Your task to perform on an android device: Install the eBay app Image 0: 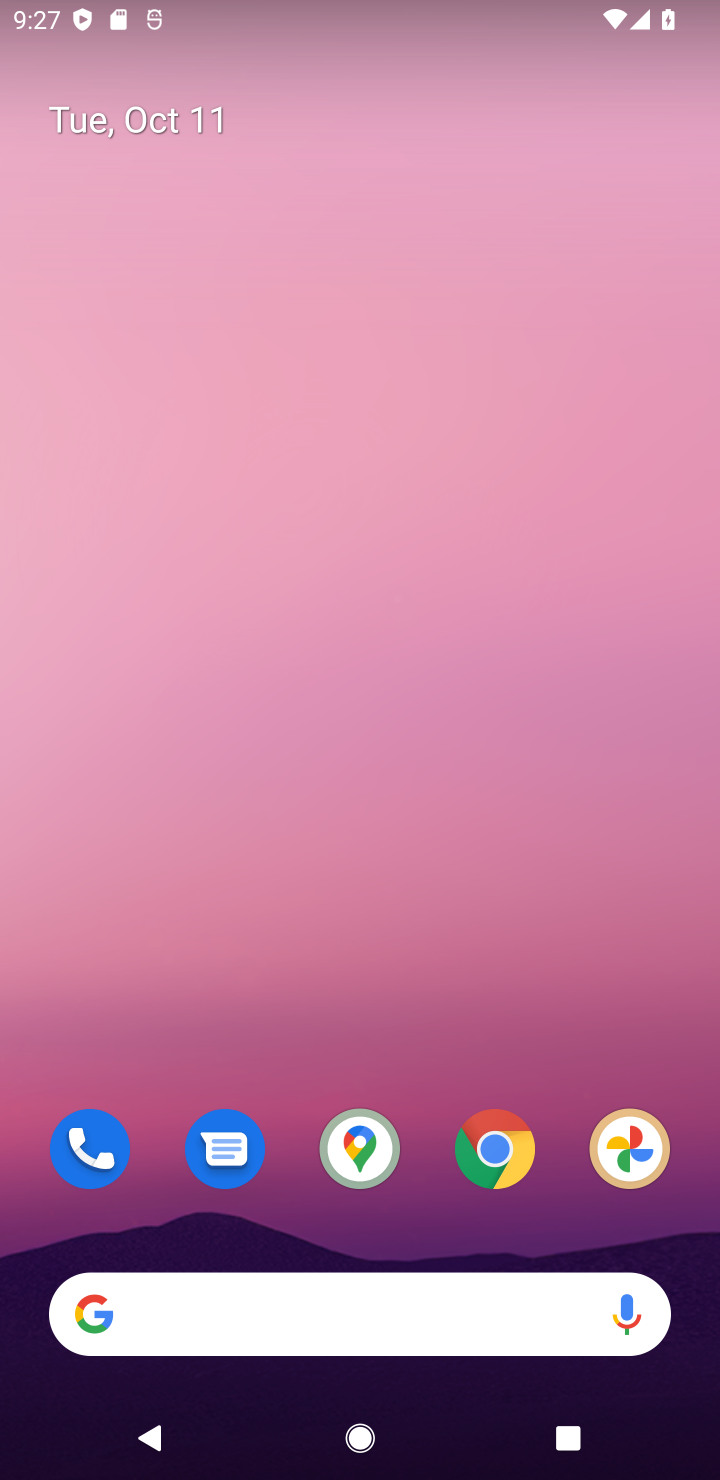
Step 0: drag from (313, 1062) to (302, 45)
Your task to perform on an android device: Install the eBay app Image 1: 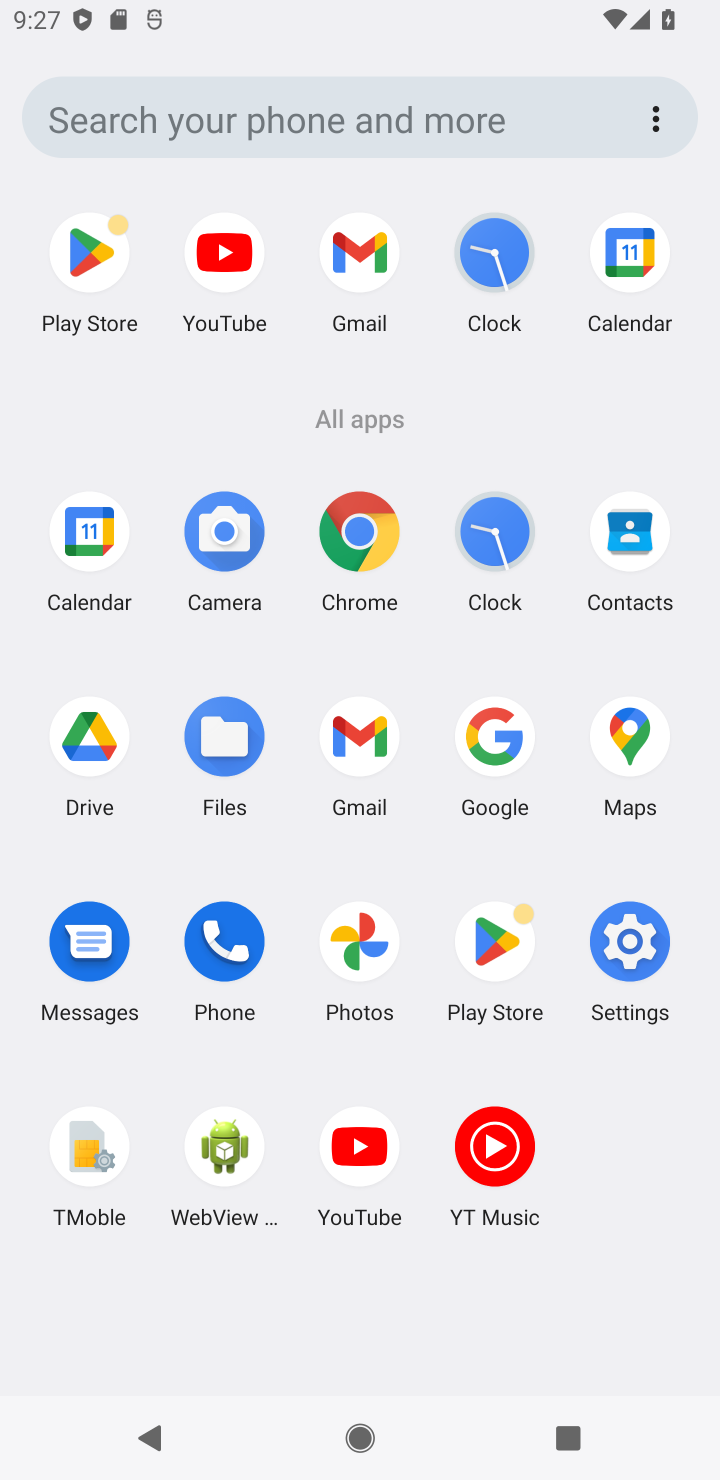
Step 1: click (490, 960)
Your task to perform on an android device: Install the eBay app Image 2: 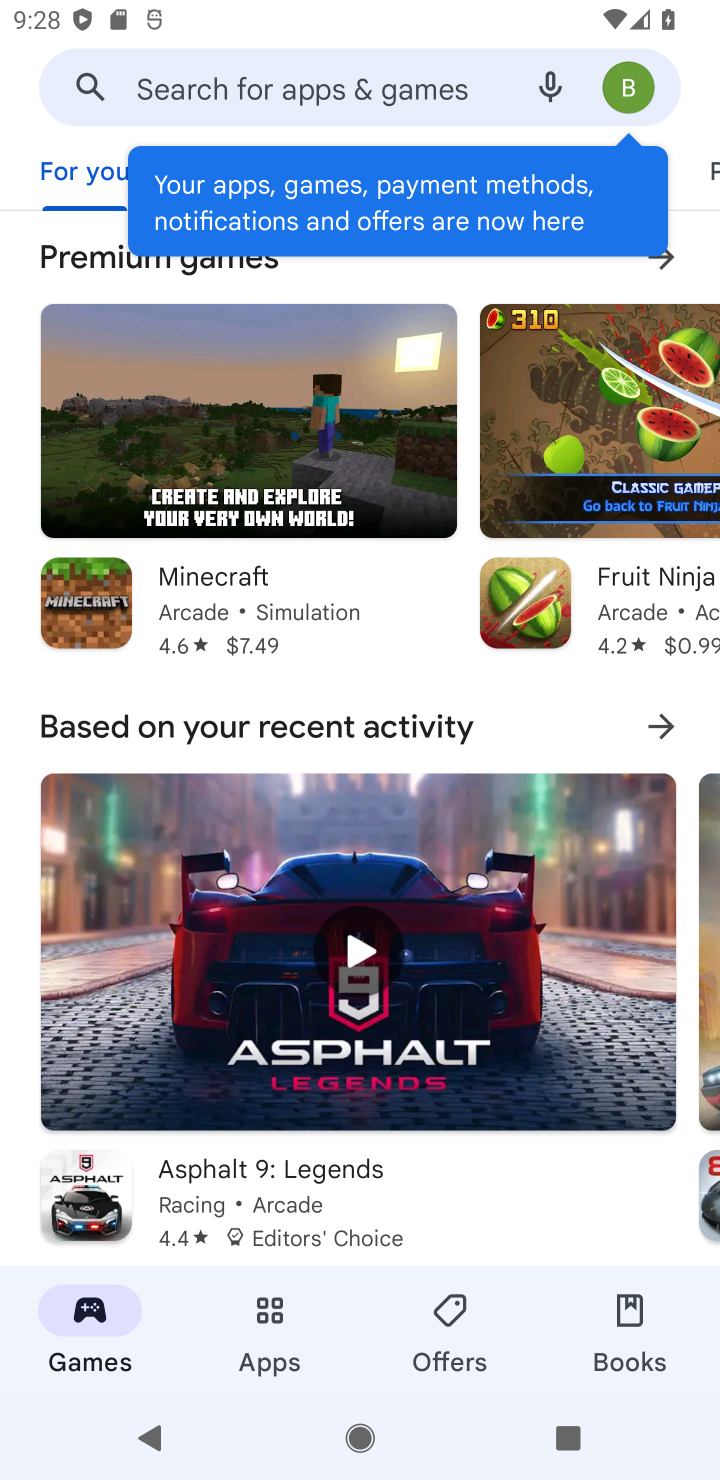
Step 2: press back button
Your task to perform on an android device: Install the eBay app Image 3: 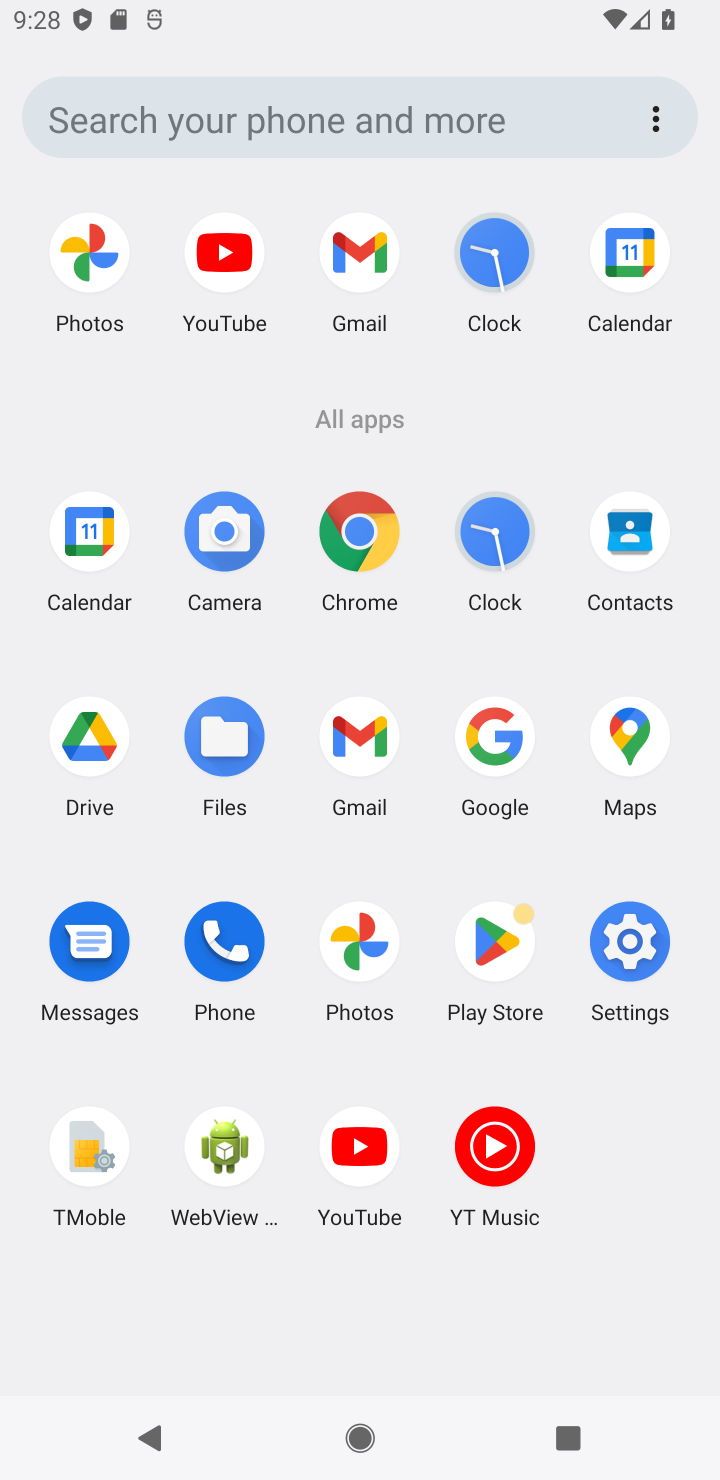
Step 3: click (500, 957)
Your task to perform on an android device: Install the eBay app Image 4: 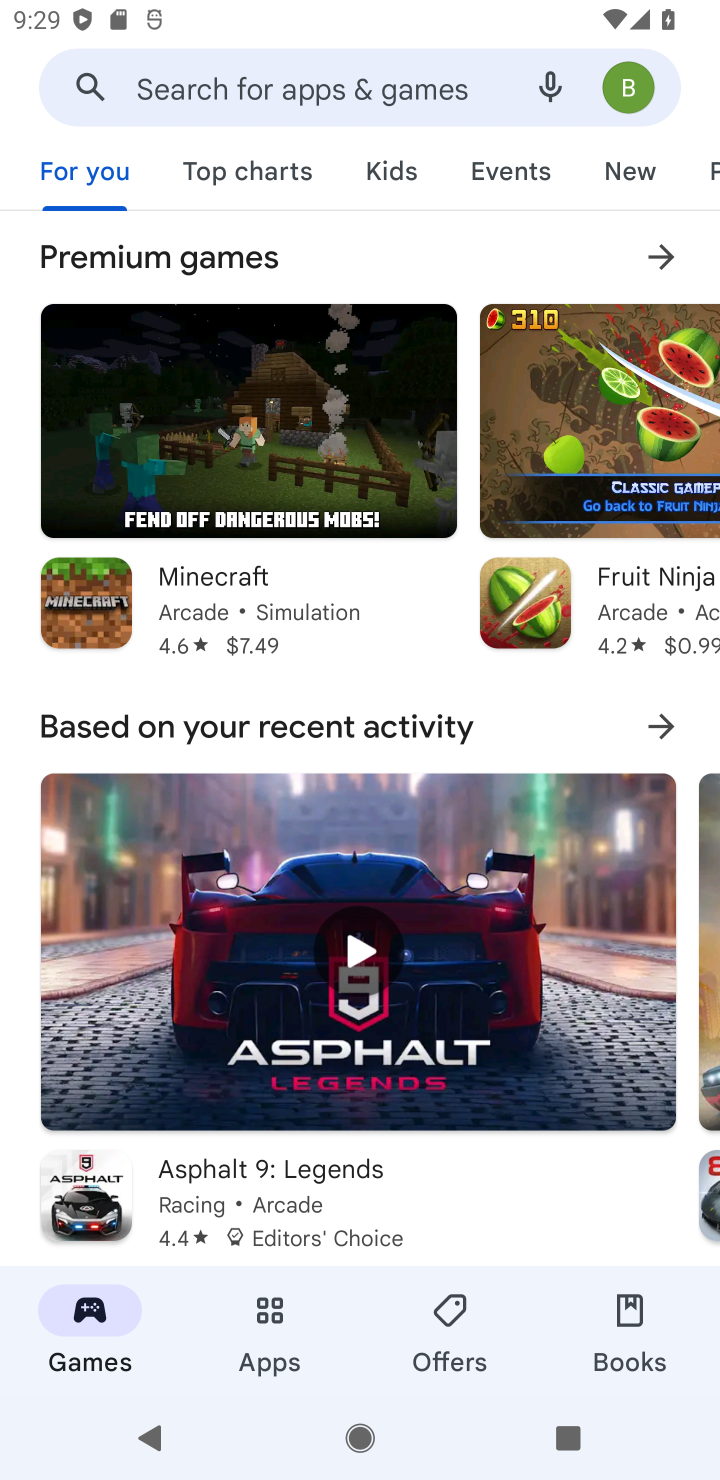
Step 4: click (256, 1325)
Your task to perform on an android device: Install the eBay app Image 5: 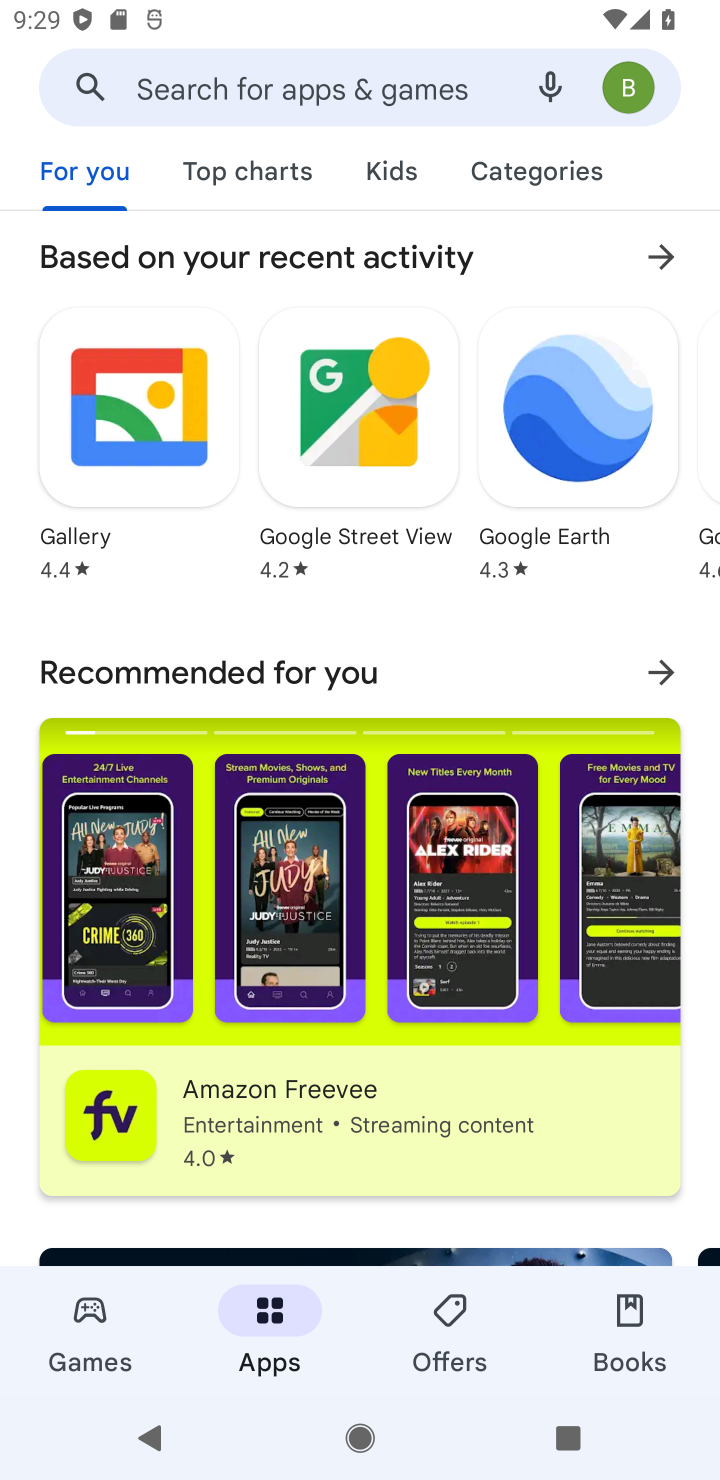
Step 5: click (320, 104)
Your task to perform on an android device: Install the eBay app Image 6: 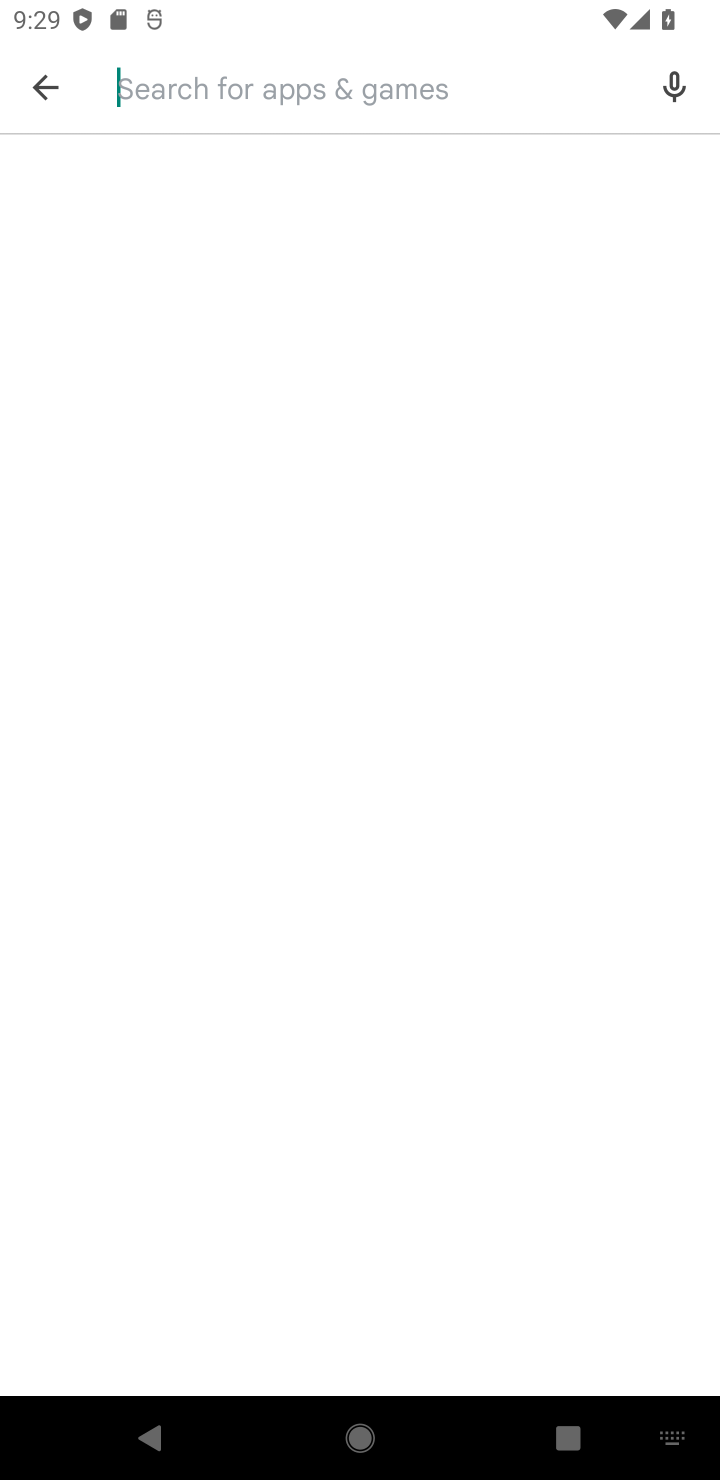
Step 6: type "eBay app"
Your task to perform on an android device: Install the eBay app Image 7: 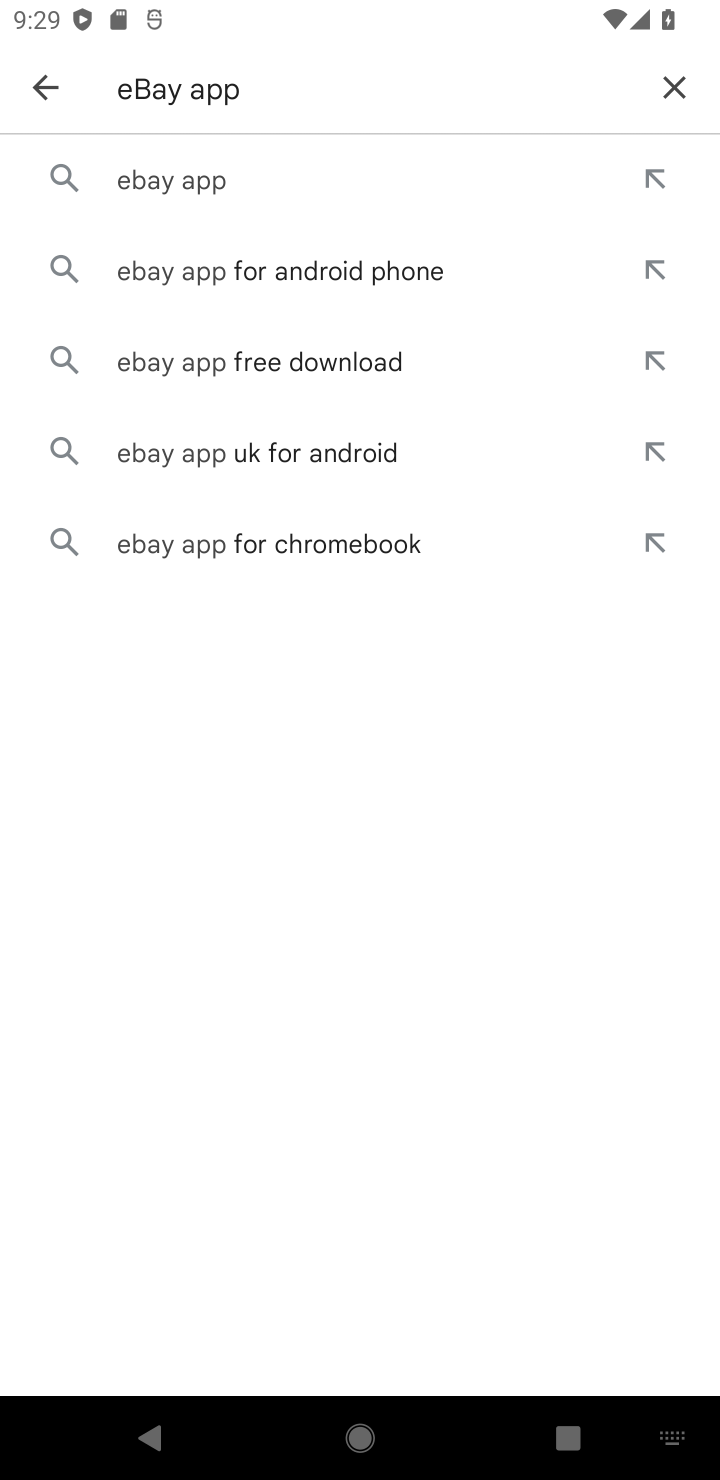
Step 7: click (193, 162)
Your task to perform on an android device: Install the eBay app Image 8: 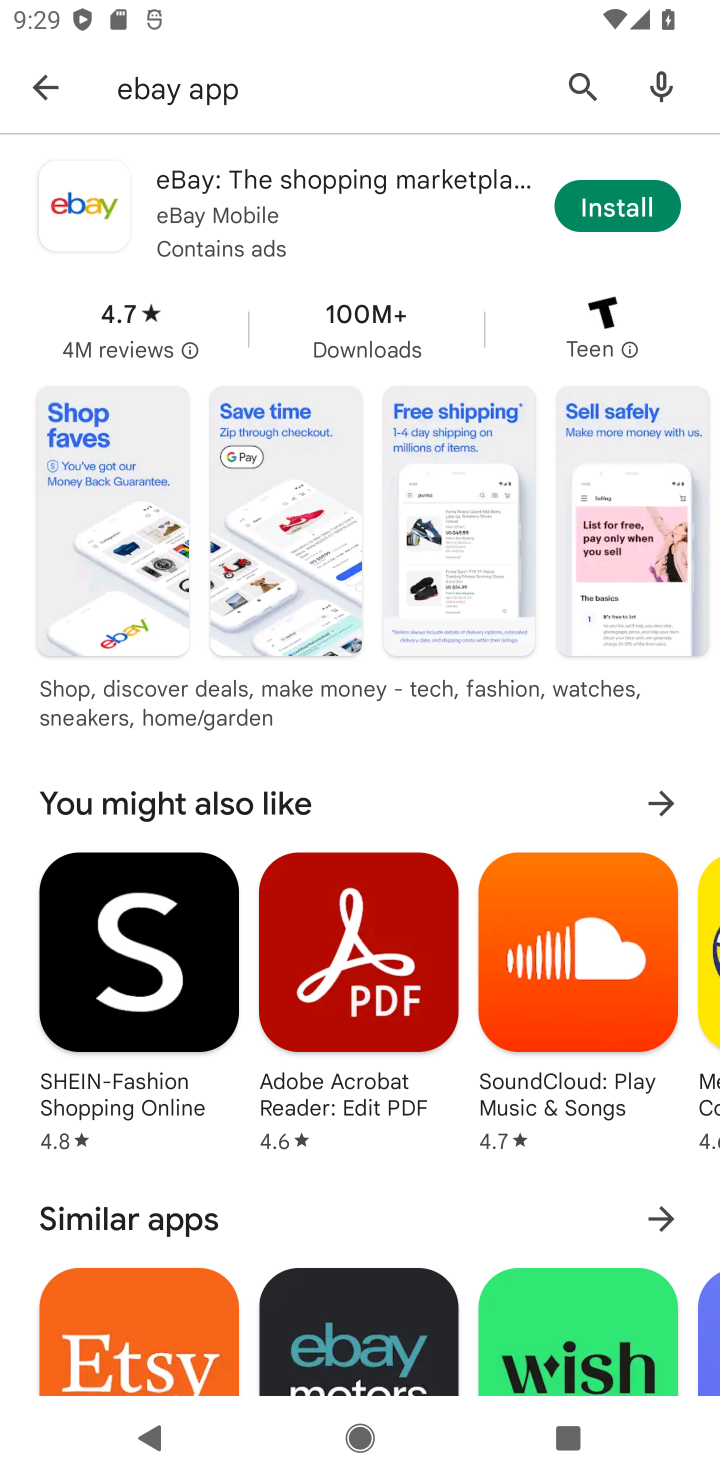
Step 8: click (628, 196)
Your task to perform on an android device: Install the eBay app Image 9: 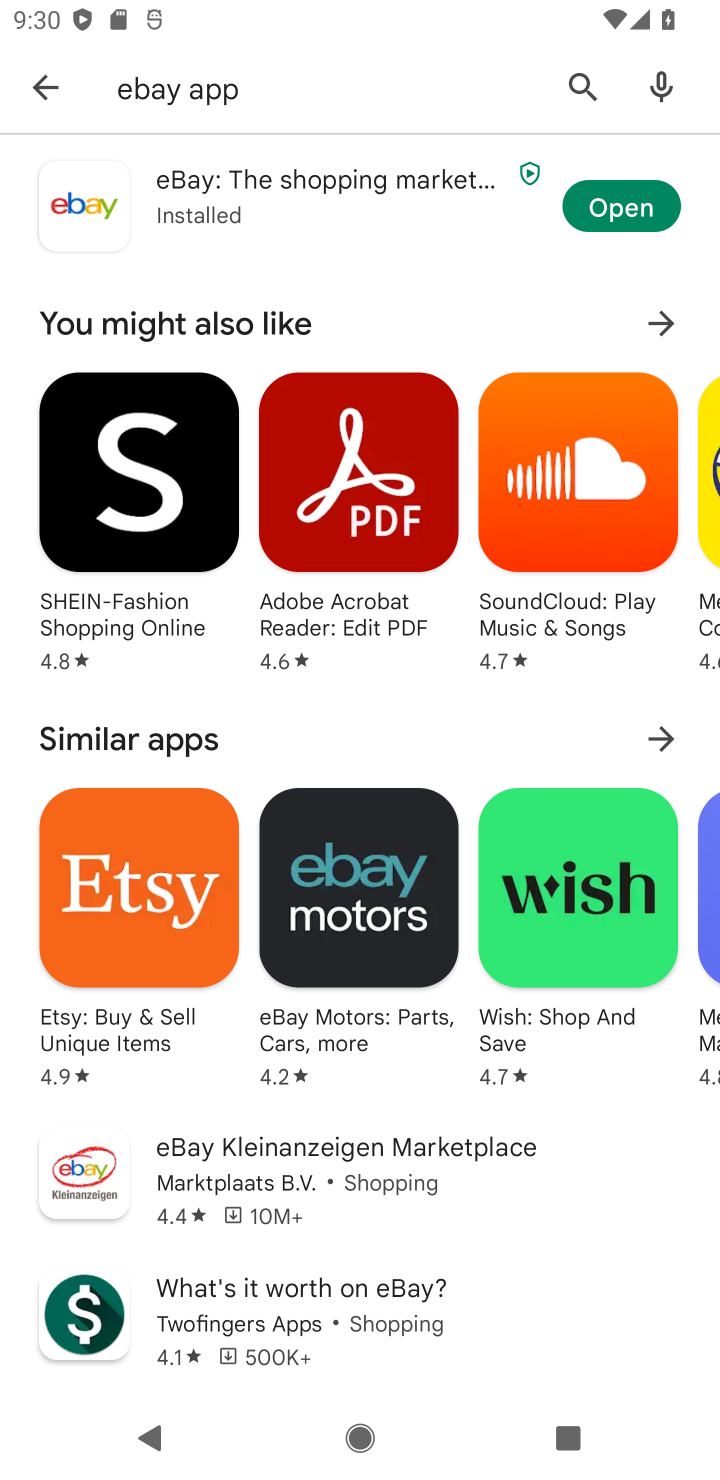
Step 9: click (628, 196)
Your task to perform on an android device: Install the eBay app Image 10: 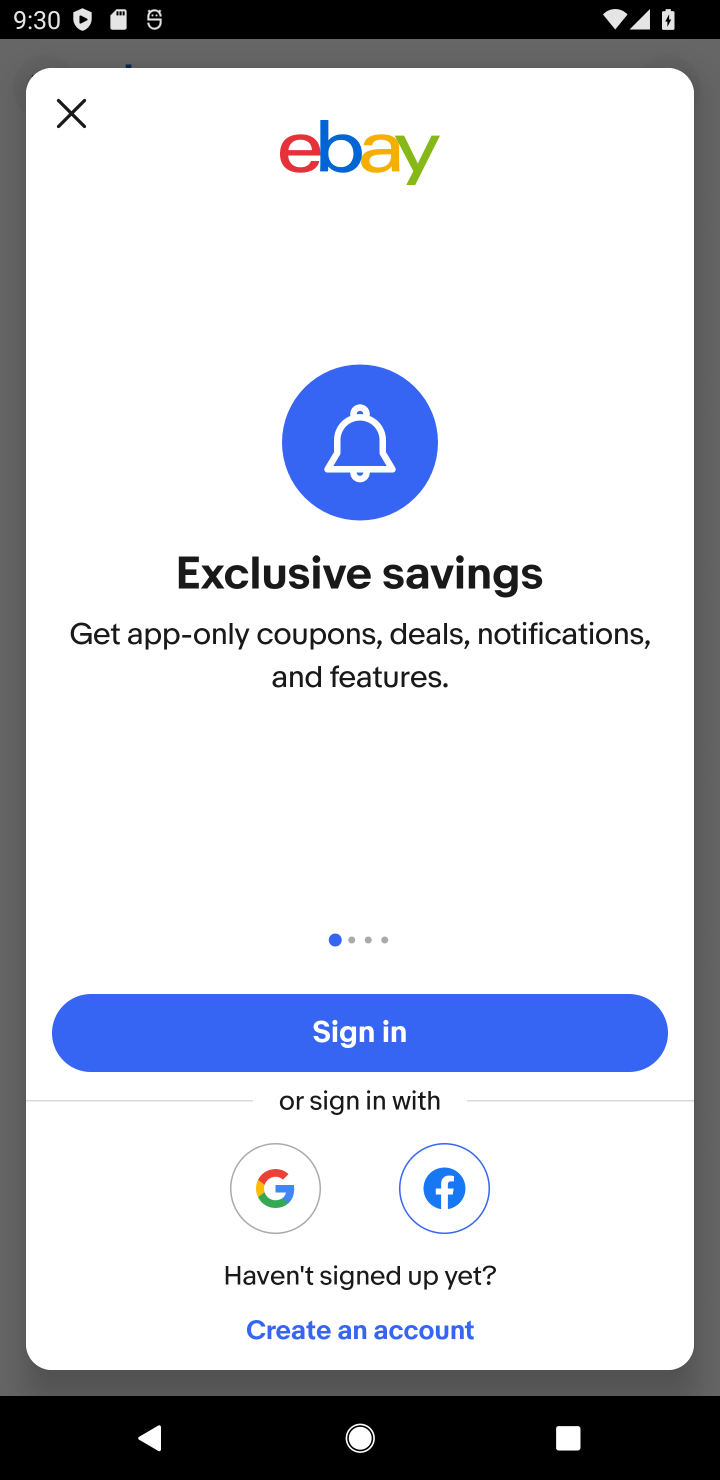
Step 10: task complete